Your task to perform on an android device: show emergency info Image 0: 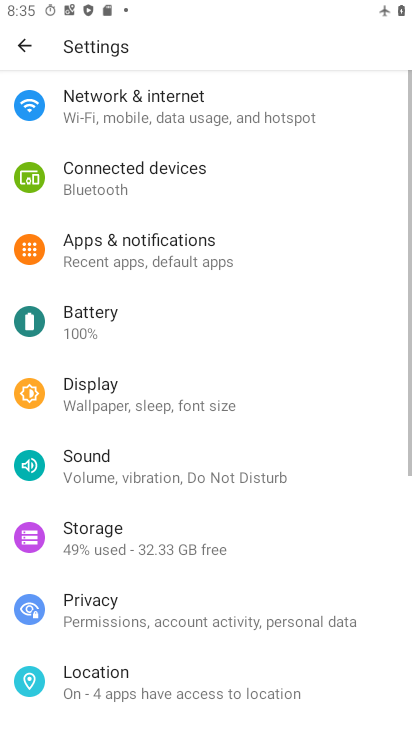
Step 0: press home button
Your task to perform on an android device: show emergency info Image 1: 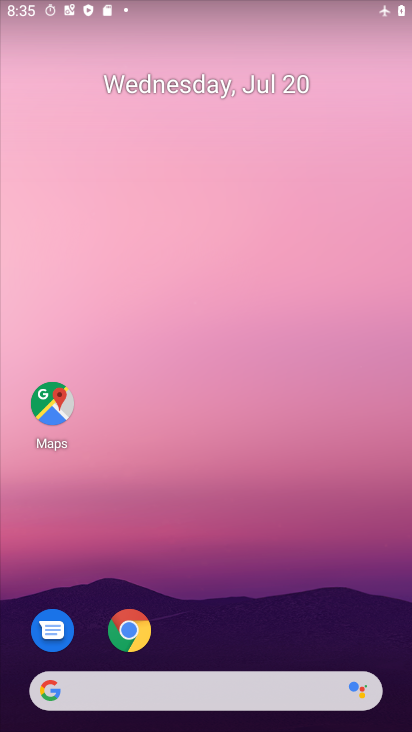
Step 1: drag from (247, 650) to (258, 314)
Your task to perform on an android device: show emergency info Image 2: 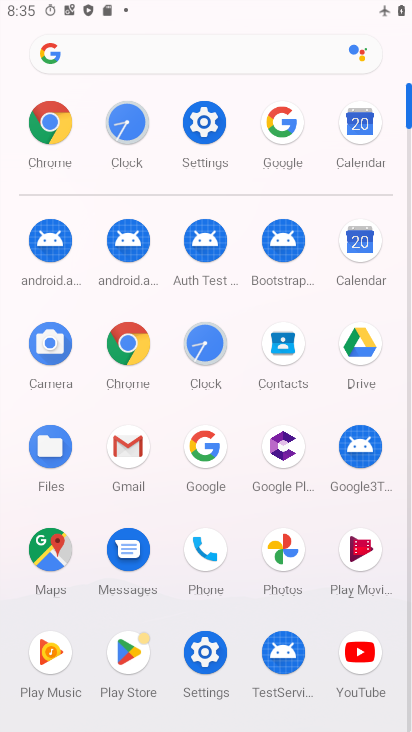
Step 2: click (219, 126)
Your task to perform on an android device: show emergency info Image 3: 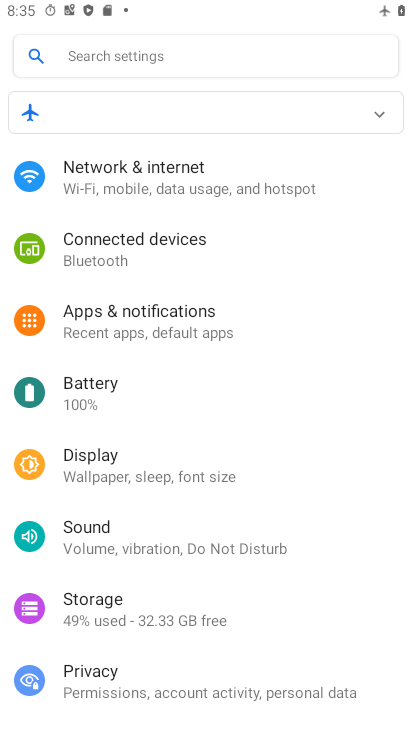
Step 3: drag from (202, 478) to (205, 333)
Your task to perform on an android device: show emergency info Image 4: 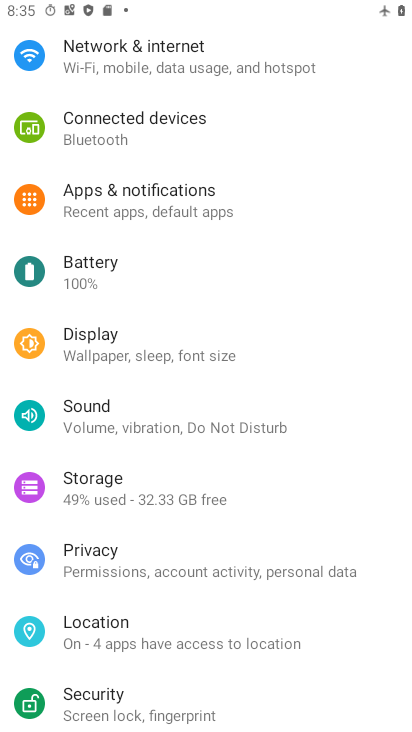
Step 4: drag from (202, 551) to (201, 311)
Your task to perform on an android device: show emergency info Image 5: 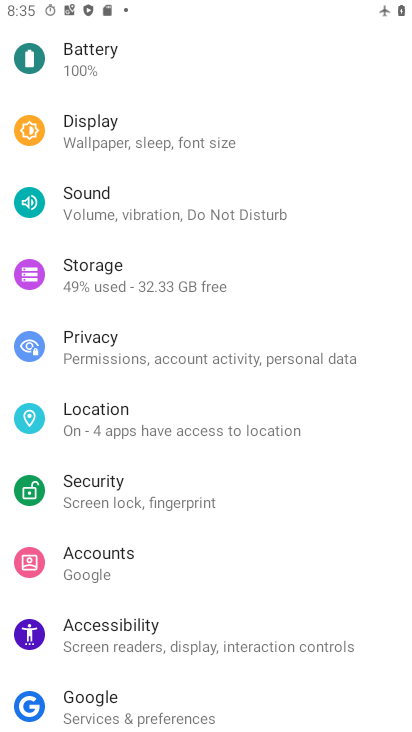
Step 5: drag from (160, 580) to (159, 368)
Your task to perform on an android device: show emergency info Image 6: 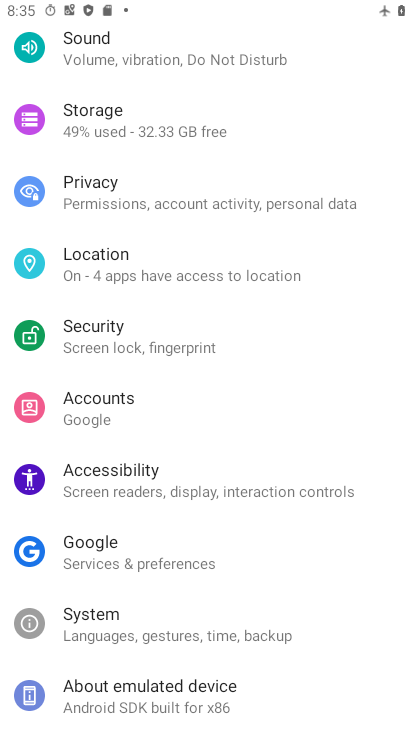
Step 6: drag from (158, 625) to (155, 376)
Your task to perform on an android device: show emergency info Image 7: 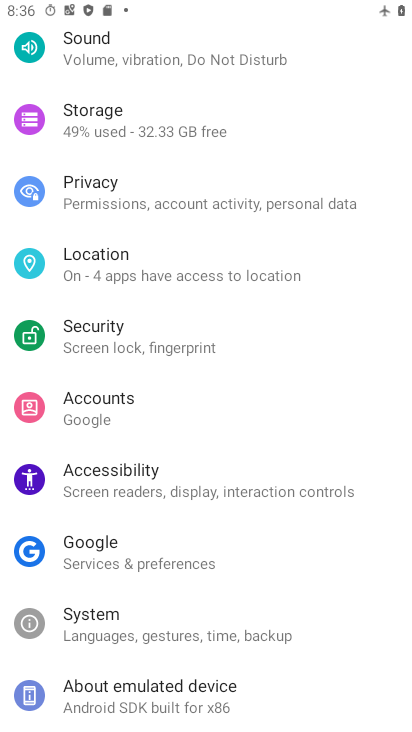
Step 7: click (184, 707)
Your task to perform on an android device: show emergency info Image 8: 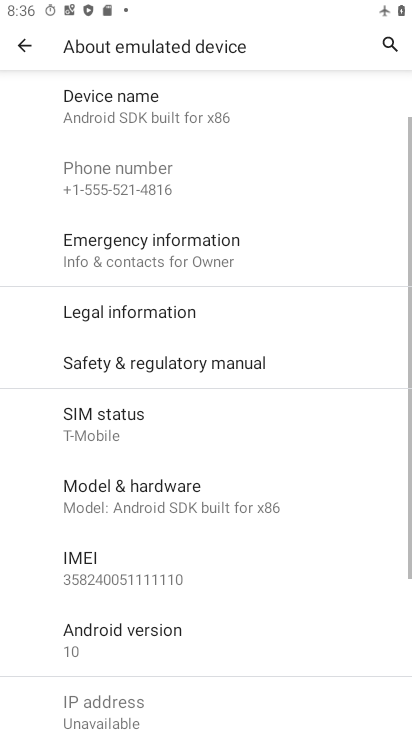
Step 8: click (192, 243)
Your task to perform on an android device: show emergency info Image 9: 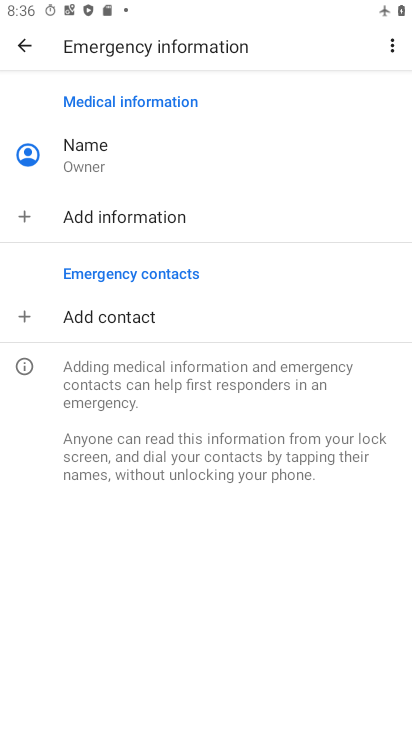
Step 9: task complete